Your task to perform on an android device: Open display settings Image 0: 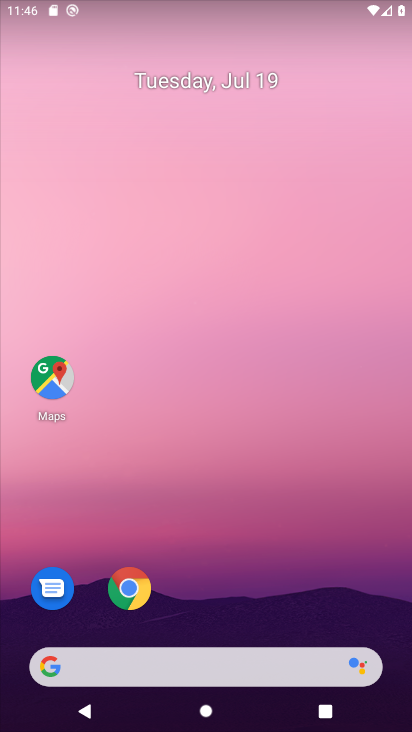
Step 0: drag from (254, 589) to (213, 28)
Your task to perform on an android device: Open display settings Image 1: 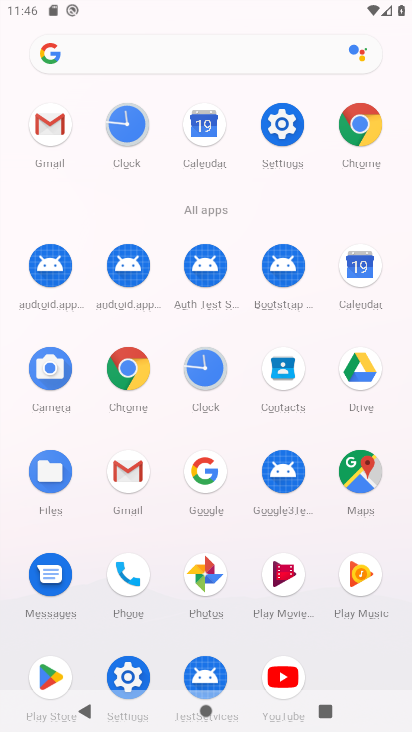
Step 1: click (124, 663)
Your task to perform on an android device: Open display settings Image 2: 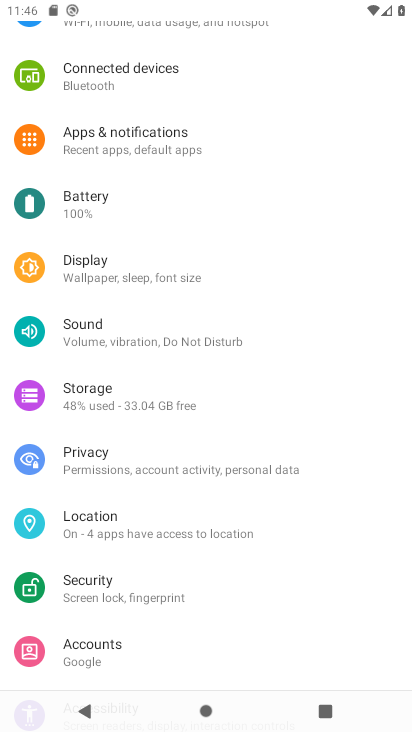
Step 2: click (94, 268)
Your task to perform on an android device: Open display settings Image 3: 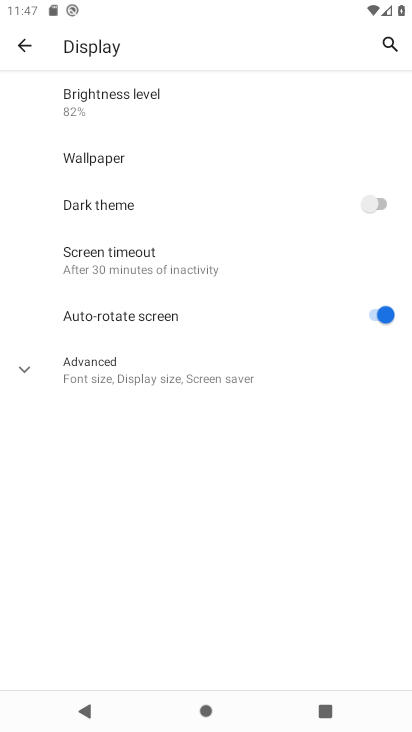
Step 3: task complete